Your task to perform on an android device: What is the capital of Argentina? Image 0: 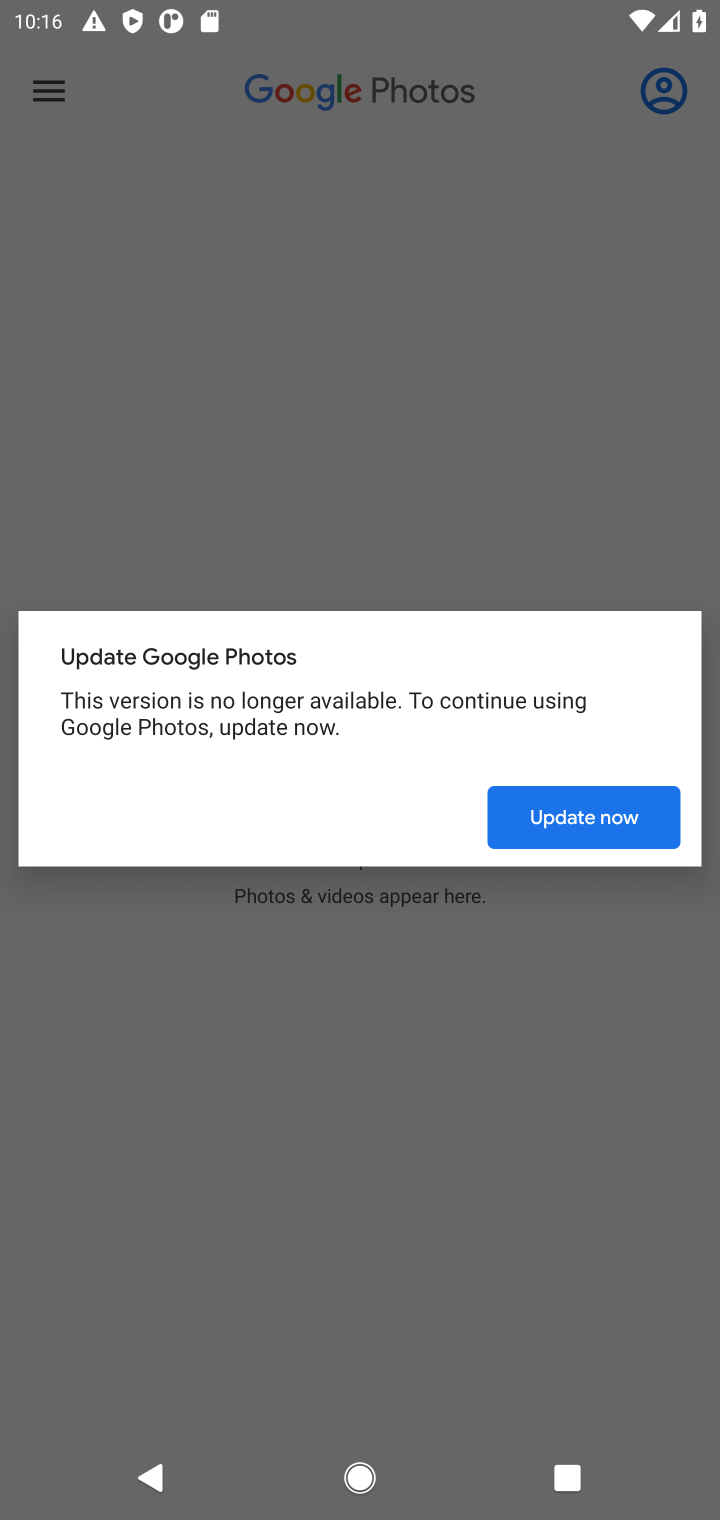
Step 0: press home button
Your task to perform on an android device: What is the capital of Argentina? Image 1: 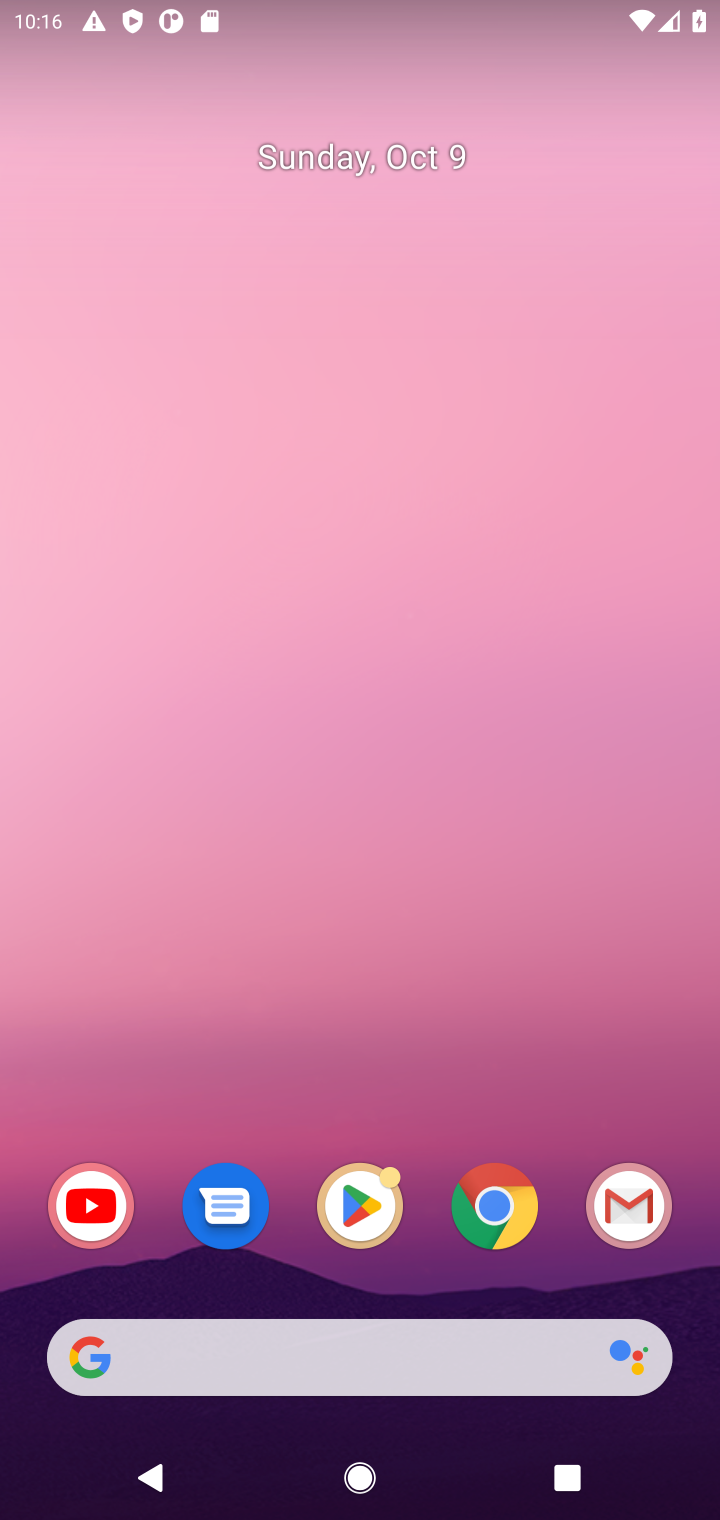
Step 1: press home button
Your task to perform on an android device: What is the capital of Argentina? Image 2: 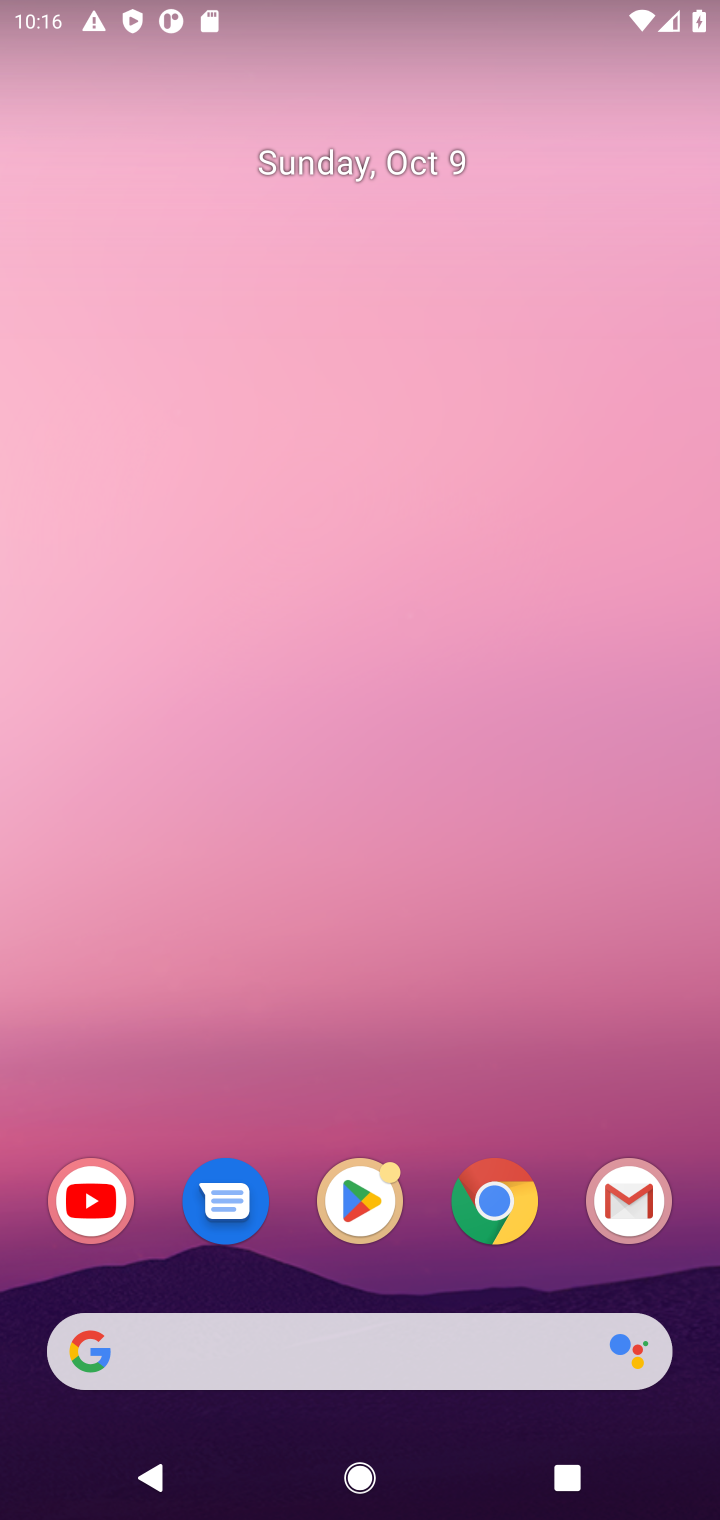
Step 2: click (476, 1193)
Your task to perform on an android device: What is the capital of Argentina? Image 3: 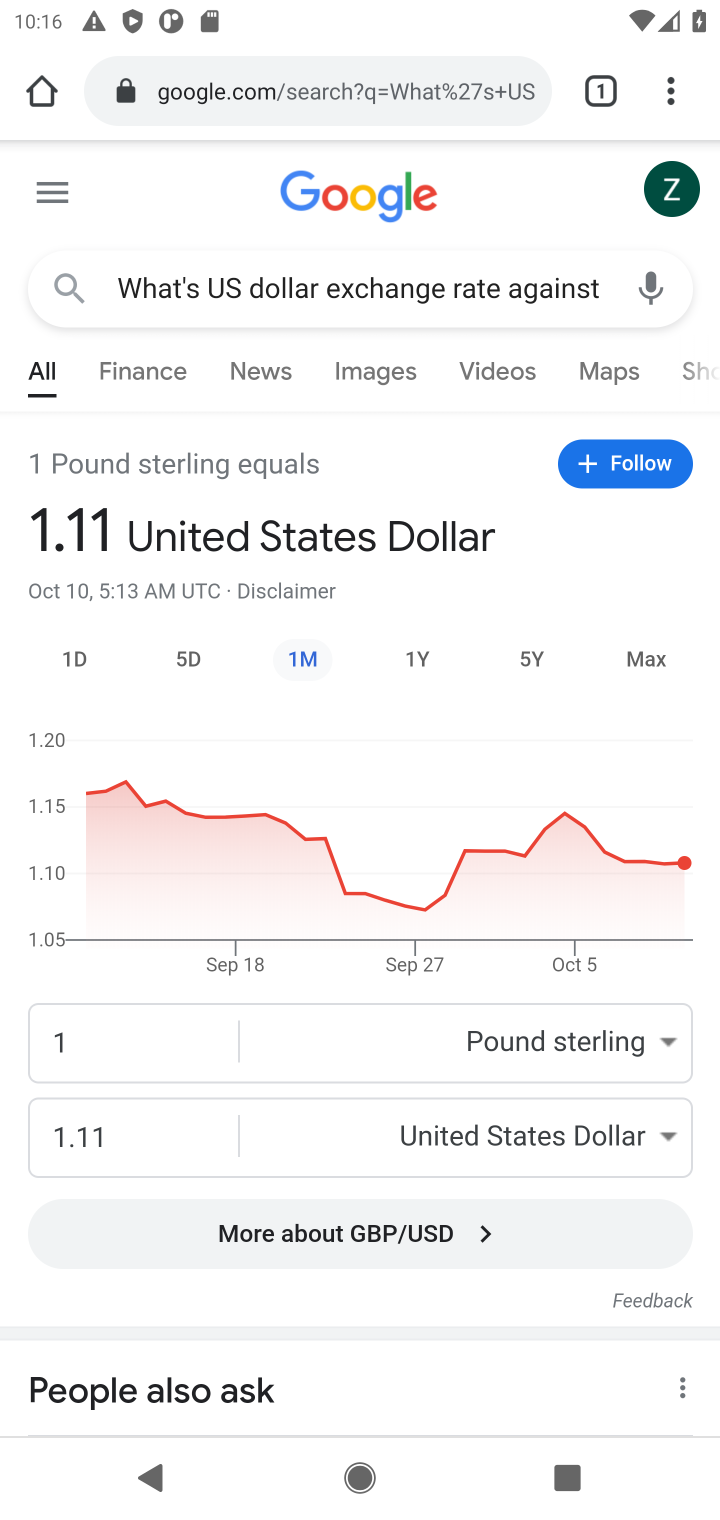
Step 3: click (358, 95)
Your task to perform on an android device: What is the capital of Argentina? Image 4: 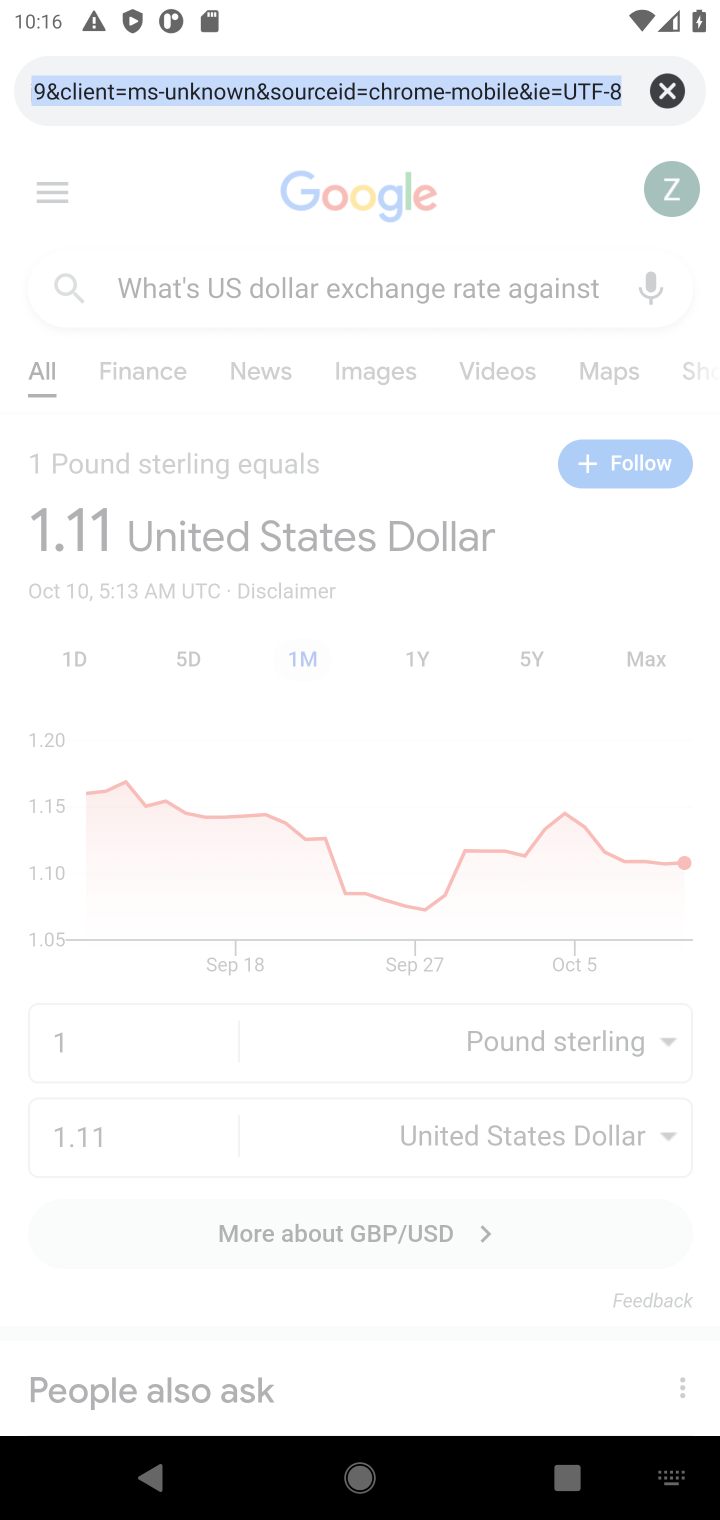
Step 4: type "capital of argentina ?"
Your task to perform on an android device: What is the capital of Argentina? Image 5: 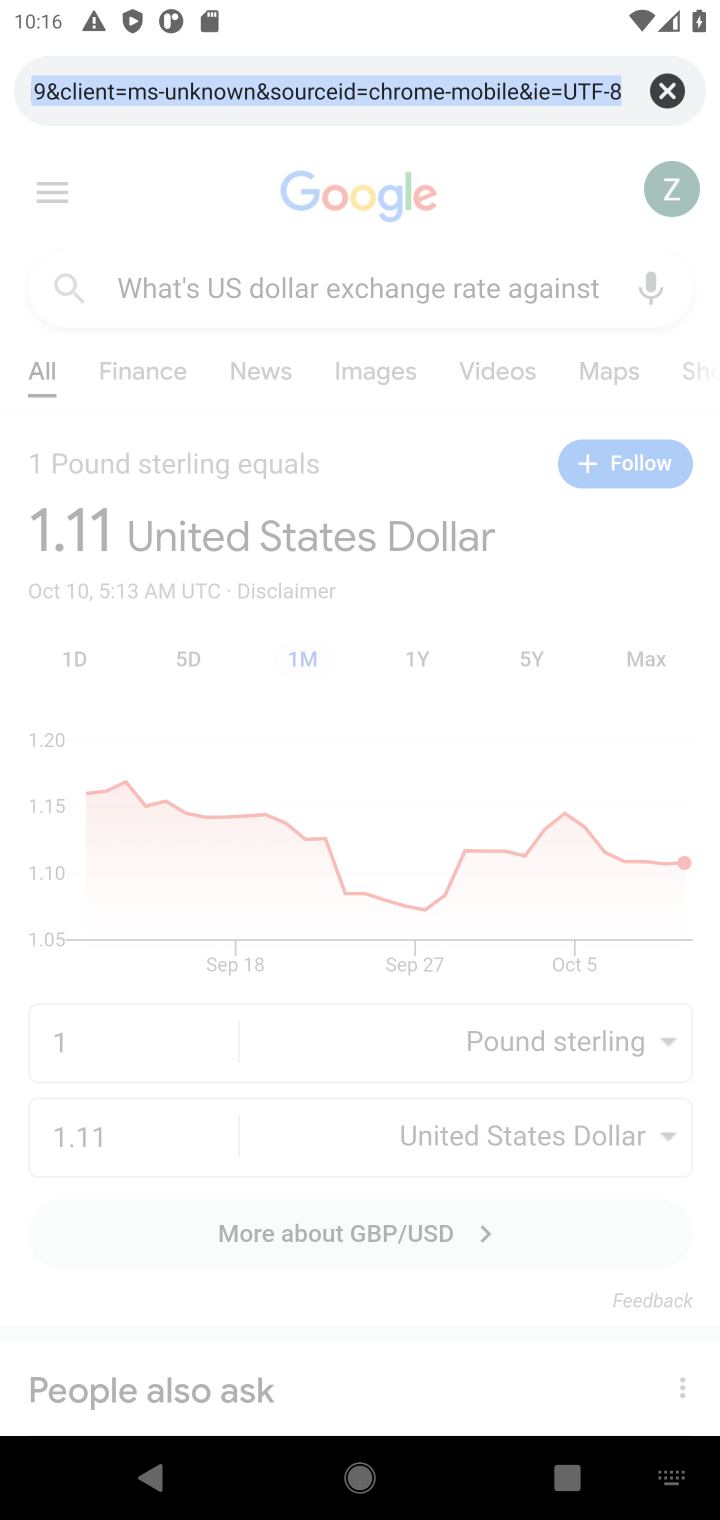
Step 5: click (518, 88)
Your task to perform on an android device: What is the capital of Argentina? Image 6: 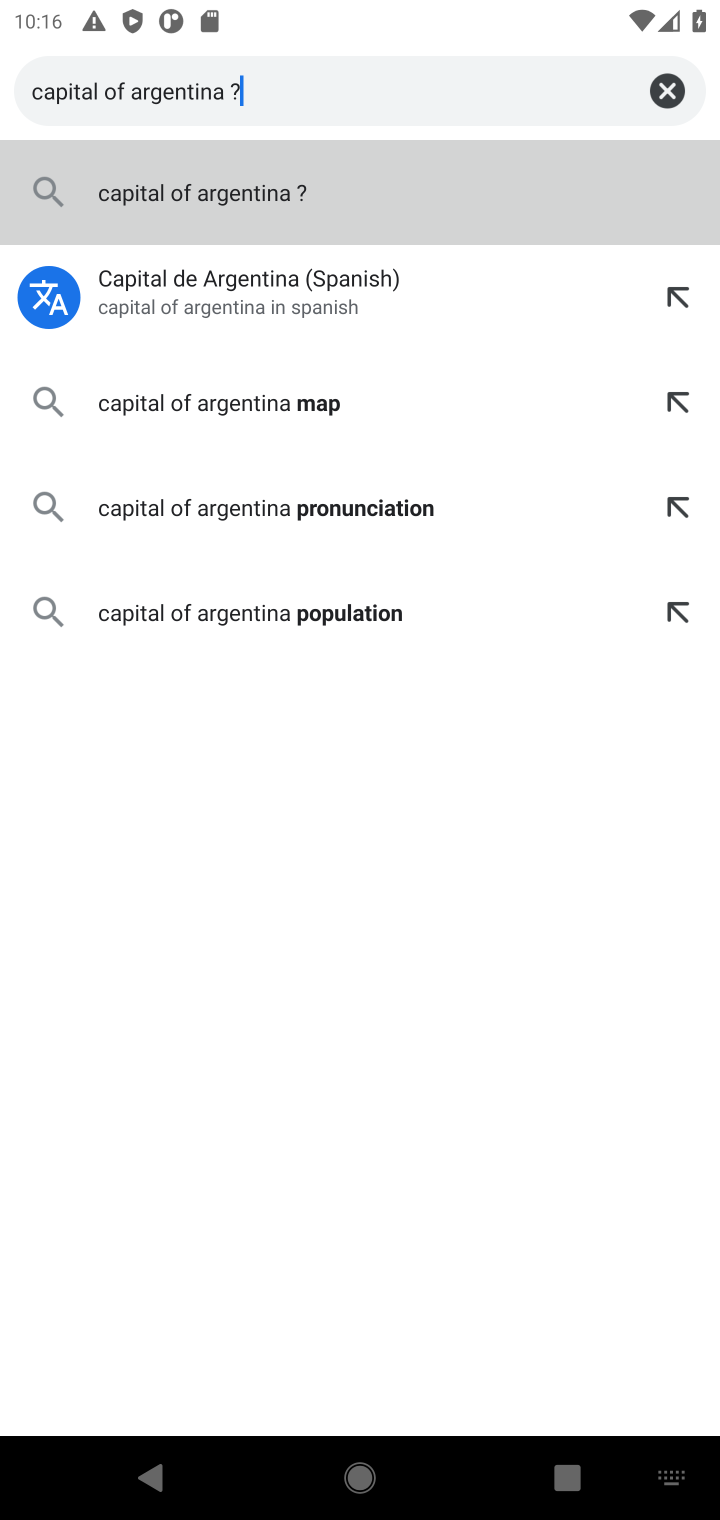
Step 6: click (274, 194)
Your task to perform on an android device: What is the capital of Argentina? Image 7: 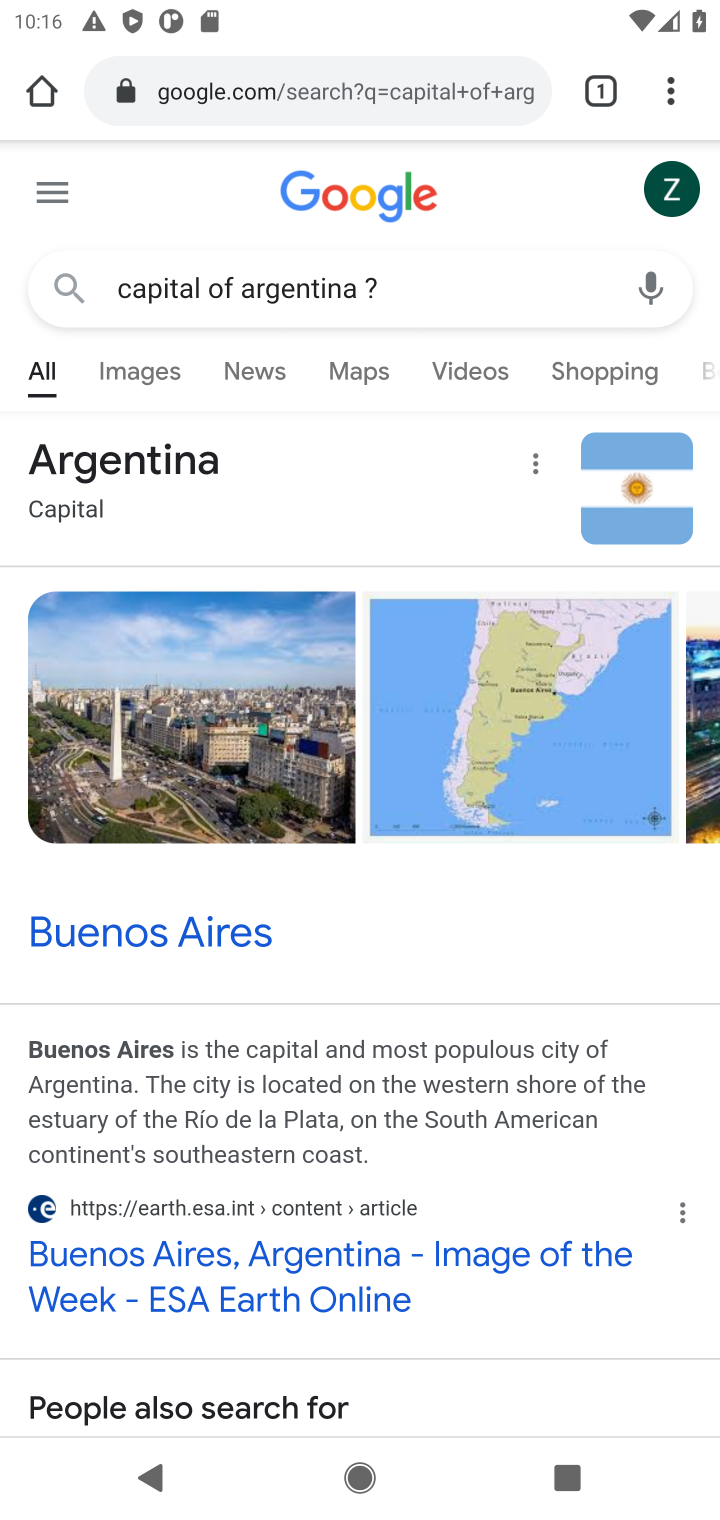
Step 7: task complete